Your task to perform on an android device: turn off data saver in the chrome app Image 0: 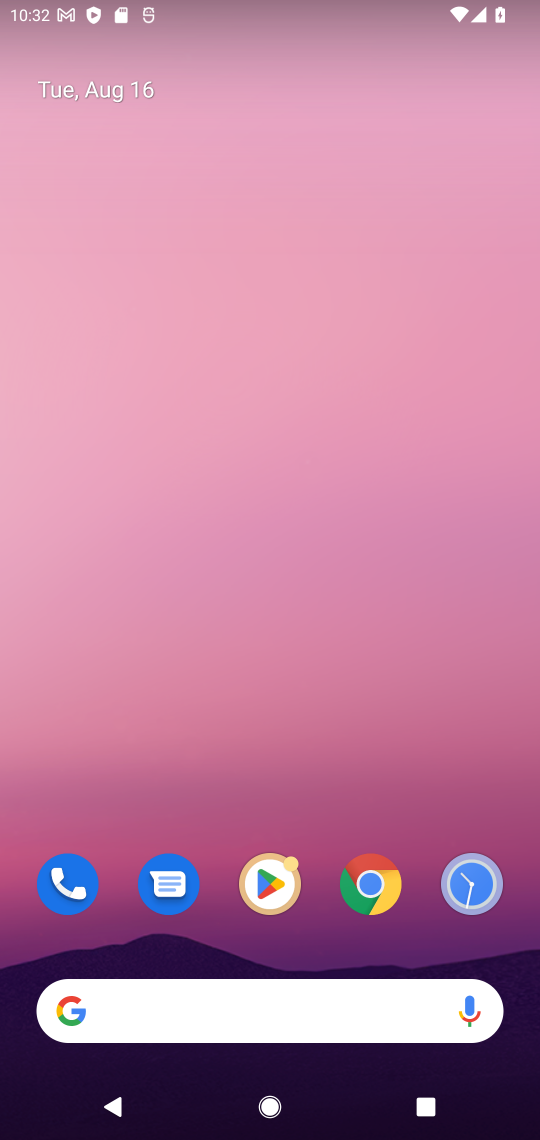
Step 0: click (375, 872)
Your task to perform on an android device: turn off data saver in the chrome app Image 1: 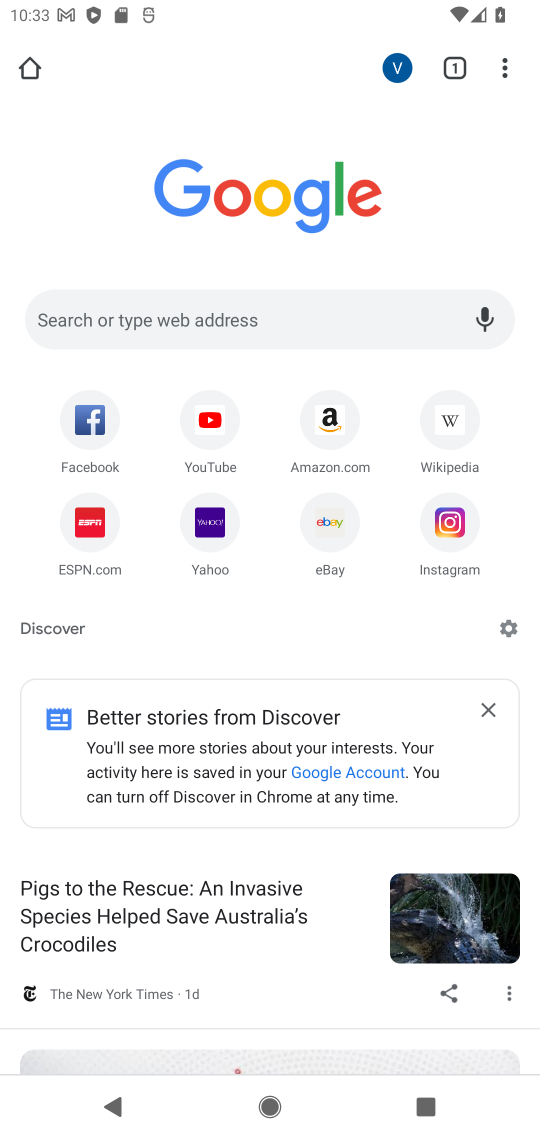
Step 1: click (512, 71)
Your task to perform on an android device: turn off data saver in the chrome app Image 2: 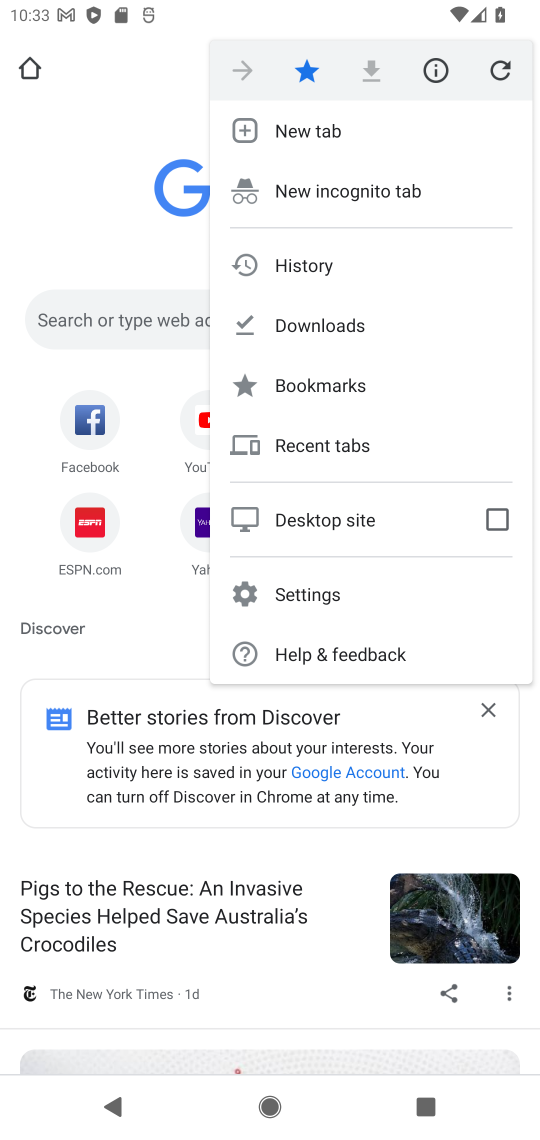
Step 2: click (294, 585)
Your task to perform on an android device: turn off data saver in the chrome app Image 3: 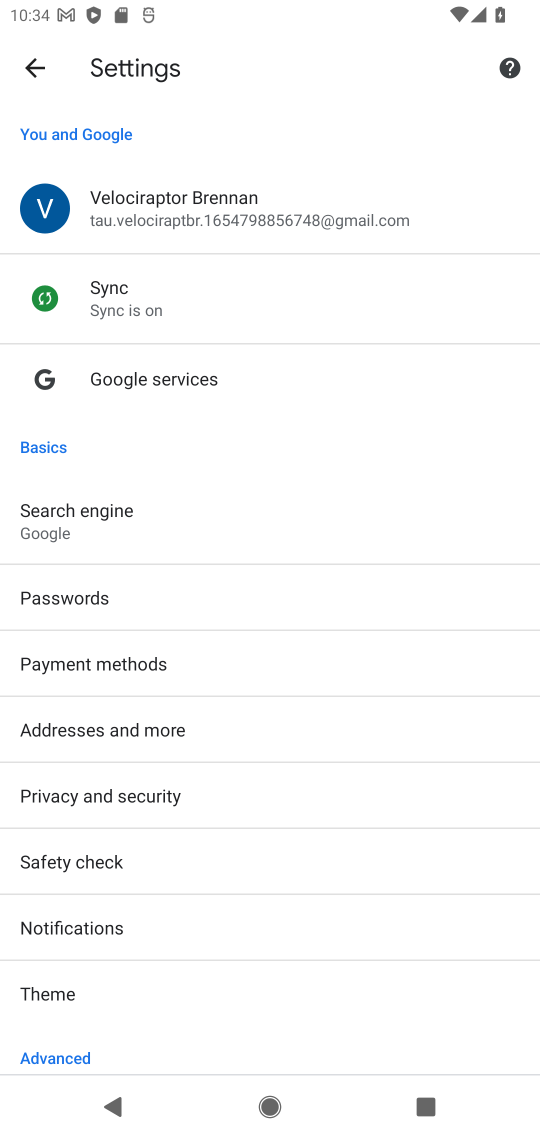
Step 3: drag from (88, 970) to (152, 290)
Your task to perform on an android device: turn off data saver in the chrome app Image 4: 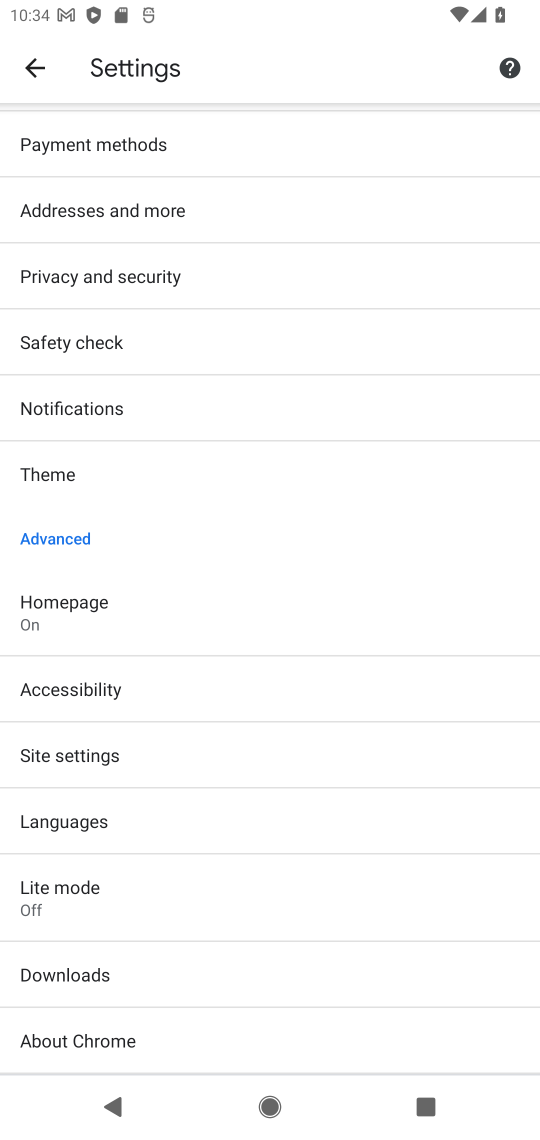
Step 4: click (69, 917)
Your task to perform on an android device: turn off data saver in the chrome app Image 5: 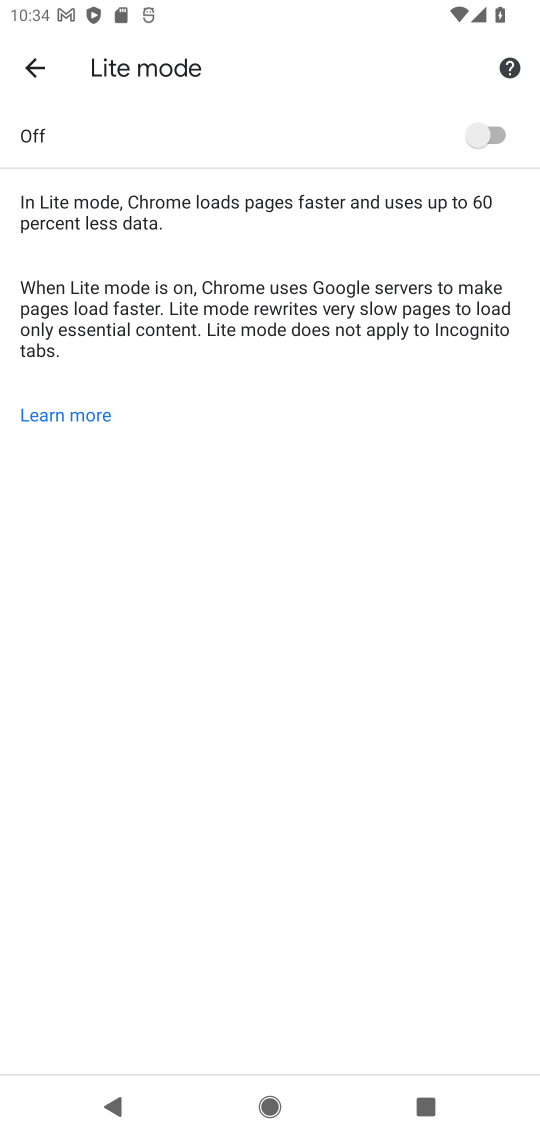
Step 5: task complete